Your task to perform on an android device: change the clock style Image 0: 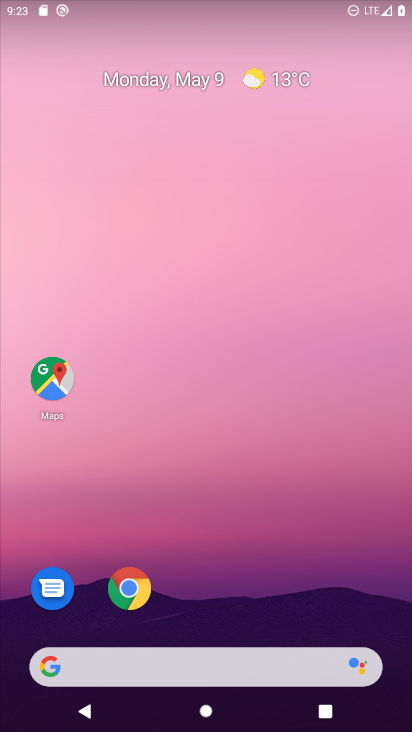
Step 0: drag from (308, 592) to (264, 200)
Your task to perform on an android device: change the clock style Image 1: 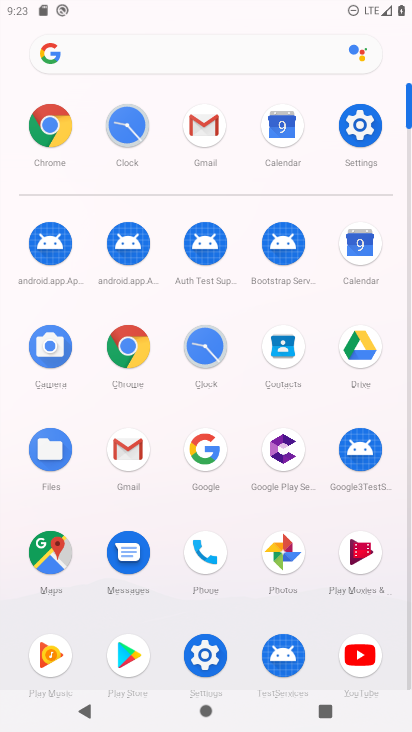
Step 1: click (197, 337)
Your task to perform on an android device: change the clock style Image 2: 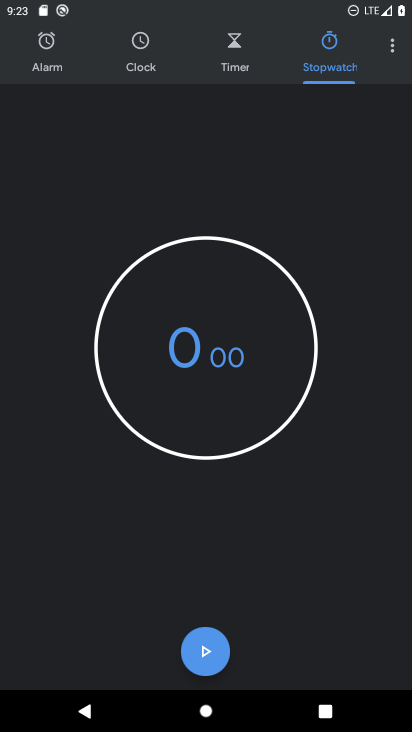
Step 2: click (395, 40)
Your task to perform on an android device: change the clock style Image 3: 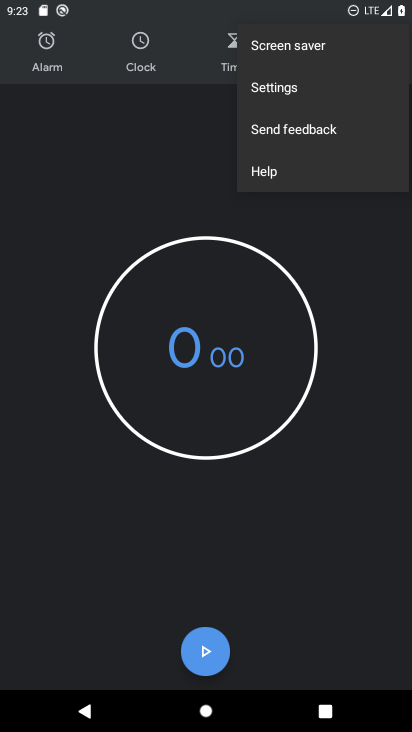
Step 3: click (334, 91)
Your task to perform on an android device: change the clock style Image 4: 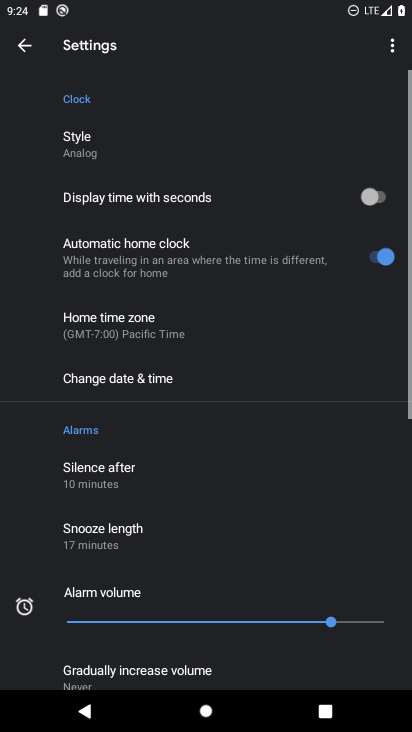
Step 4: click (189, 159)
Your task to perform on an android device: change the clock style Image 5: 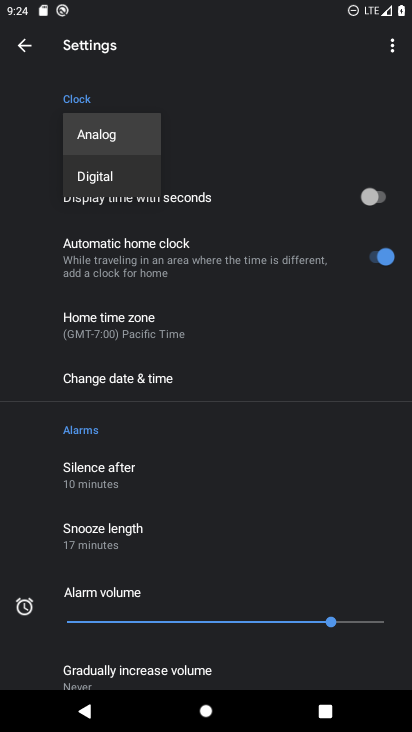
Step 5: click (129, 177)
Your task to perform on an android device: change the clock style Image 6: 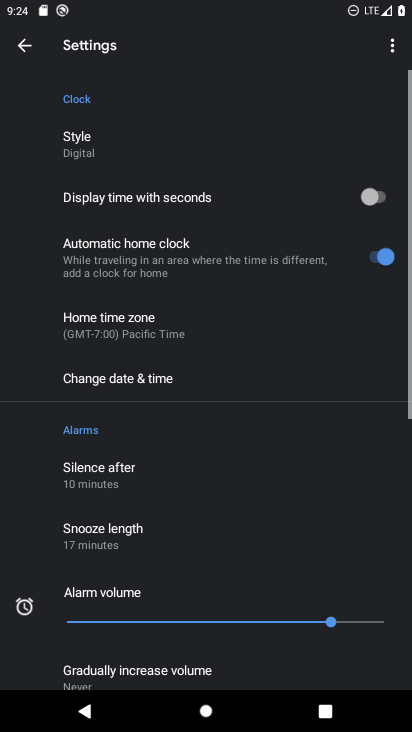
Step 6: task complete